Your task to perform on an android device: What's the weather? Image 0: 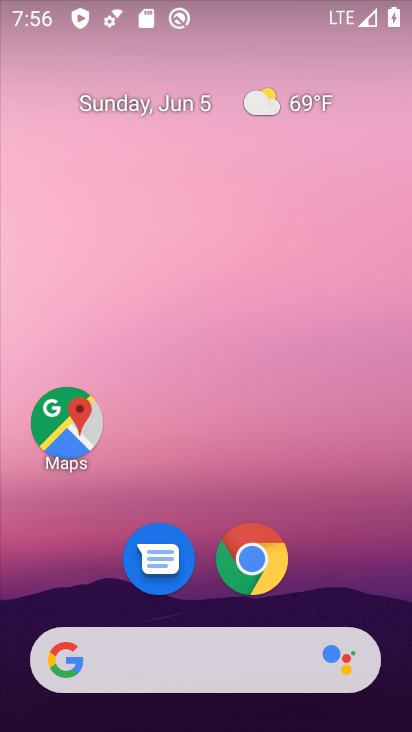
Step 0: click (323, 105)
Your task to perform on an android device: What's the weather? Image 1: 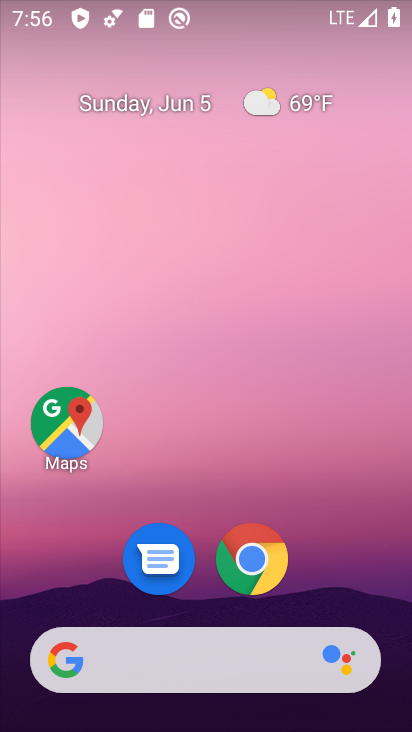
Step 1: click (249, 105)
Your task to perform on an android device: What's the weather? Image 2: 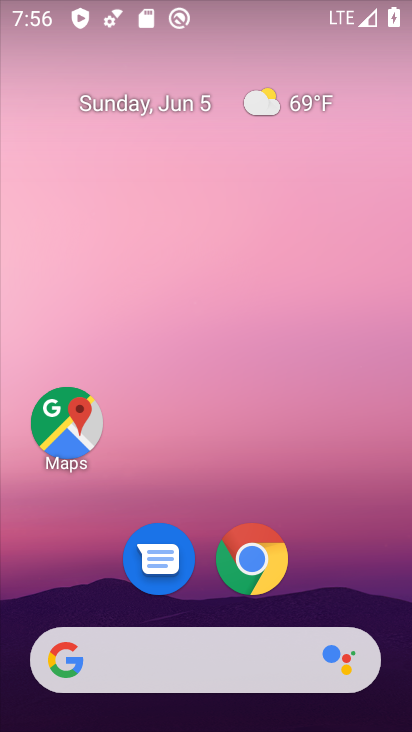
Step 2: click (269, 106)
Your task to perform on an android device: What's the weather? Image 3: 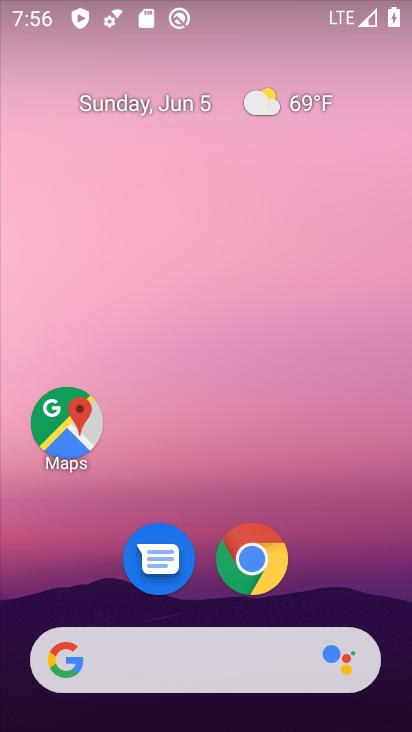
Step 3: click (323, 104)
Your task to perform on an android device: What's the weather? Image 4: 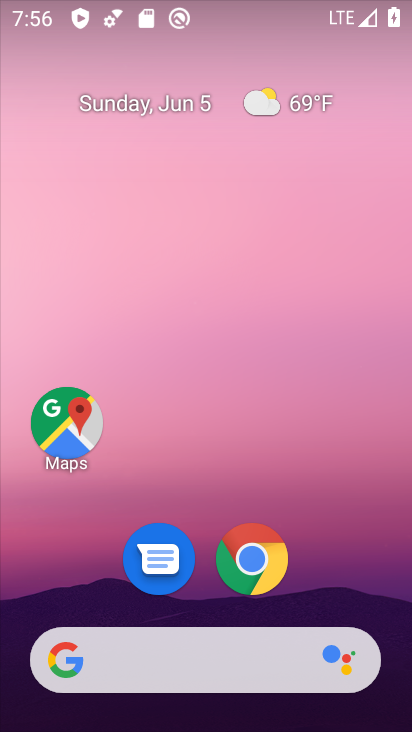
Step 4: click (322, 104)
Your task to perform on an android device: What's the weather? Image 5: 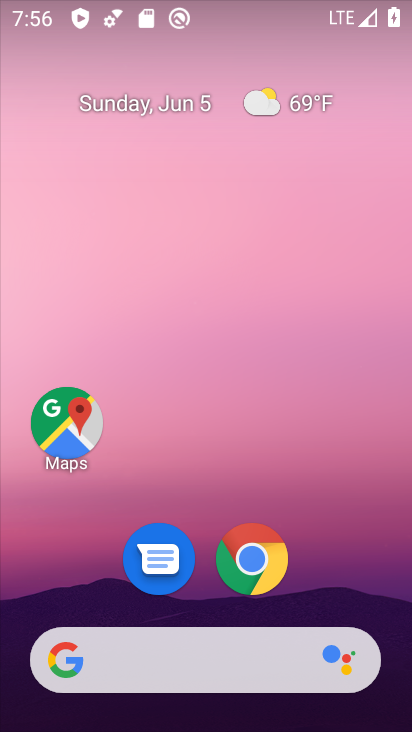
Step 5: click (302, 103)
Your task to perform on an android device: What's the weather? Image 6: 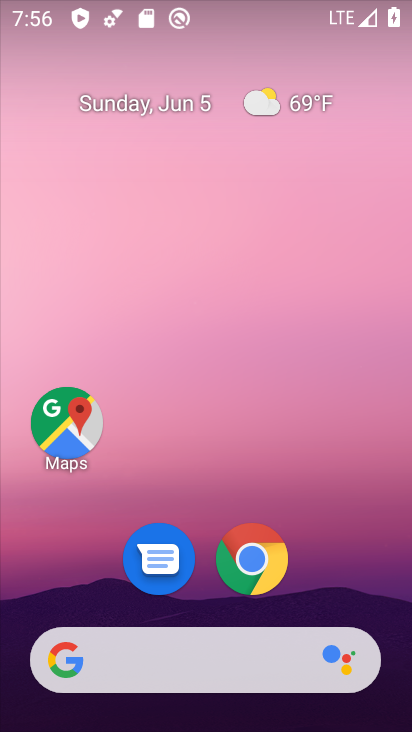
Step 6: click (302, 104)
Your task to perform on an android device: What's the weather? Image 7: 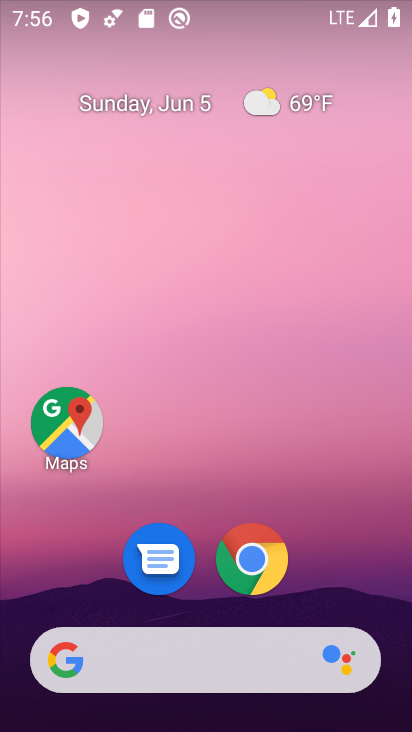
Step 7: click (271, 100)
Your task to perform on an android device: What's the weather? Image 8: 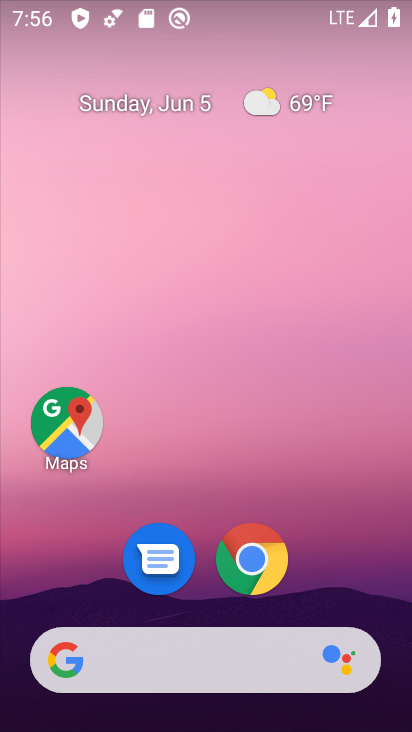
Step 8: drag from (354, 537) to (317, 154)
Your task to perform on an android device: What's the weather? Image 9: 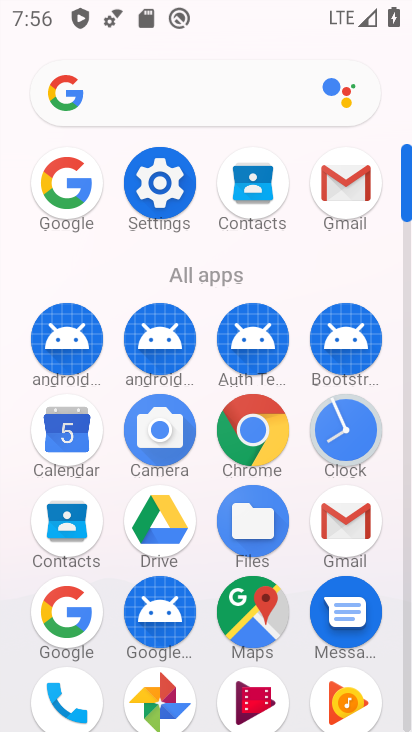
Step 9: click (73, 194)
Your task to perform on an android device: What's the weather? Image 10: 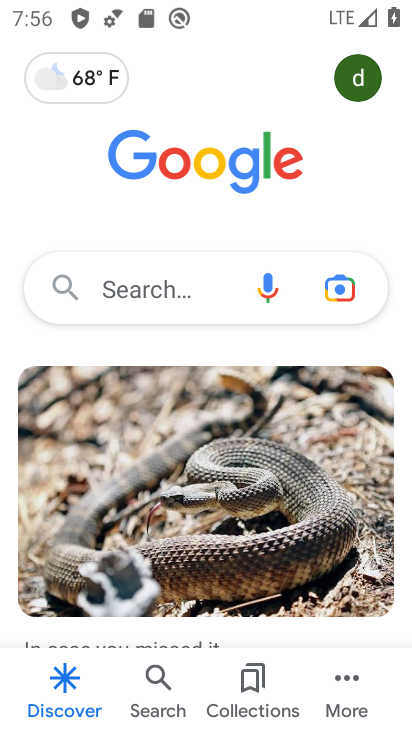
Step 10: click (181, 292)
Your task to perform on an android device: What's the weather? Image 11: 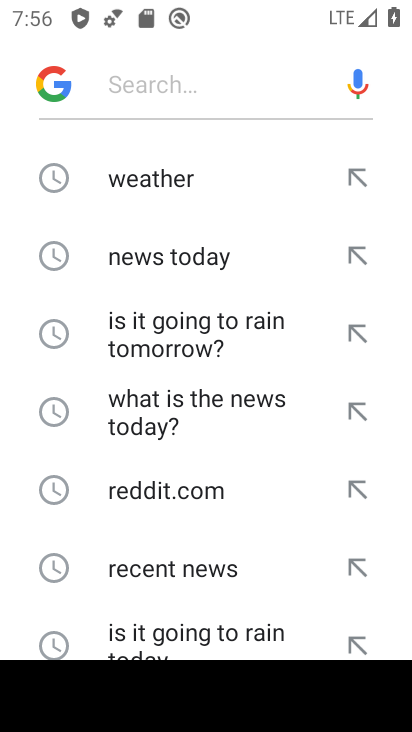
Step 11: press back button
Your task to perform on an android device: What's the weather? Image 12: 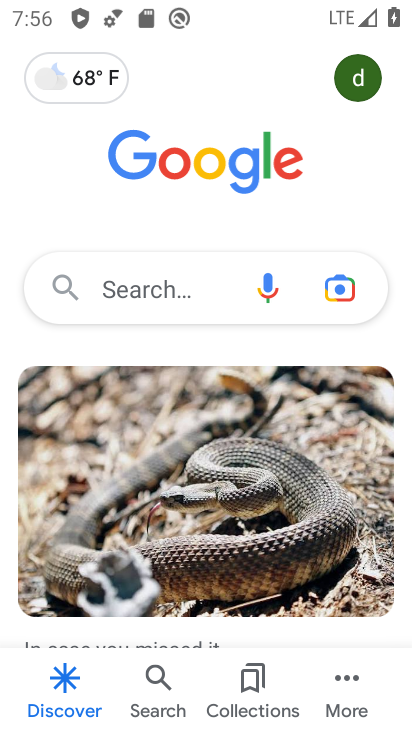
Step 12: click (73, 71)
Your task to perform on an android device: What's the weather? Image 13: 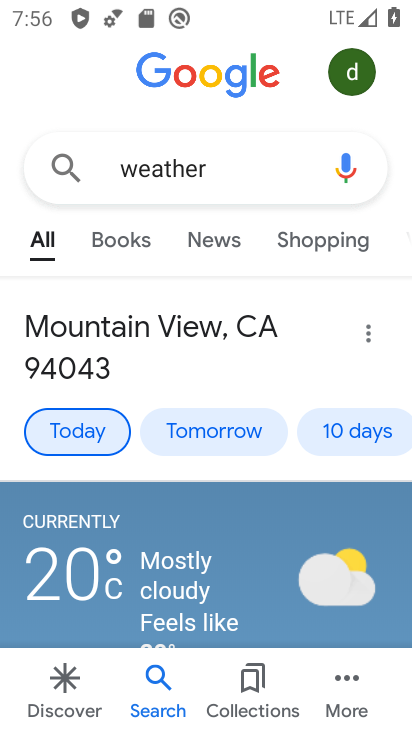
Step 13: task complete